Your task to perform on an android device: Go to Android settings Image 0: 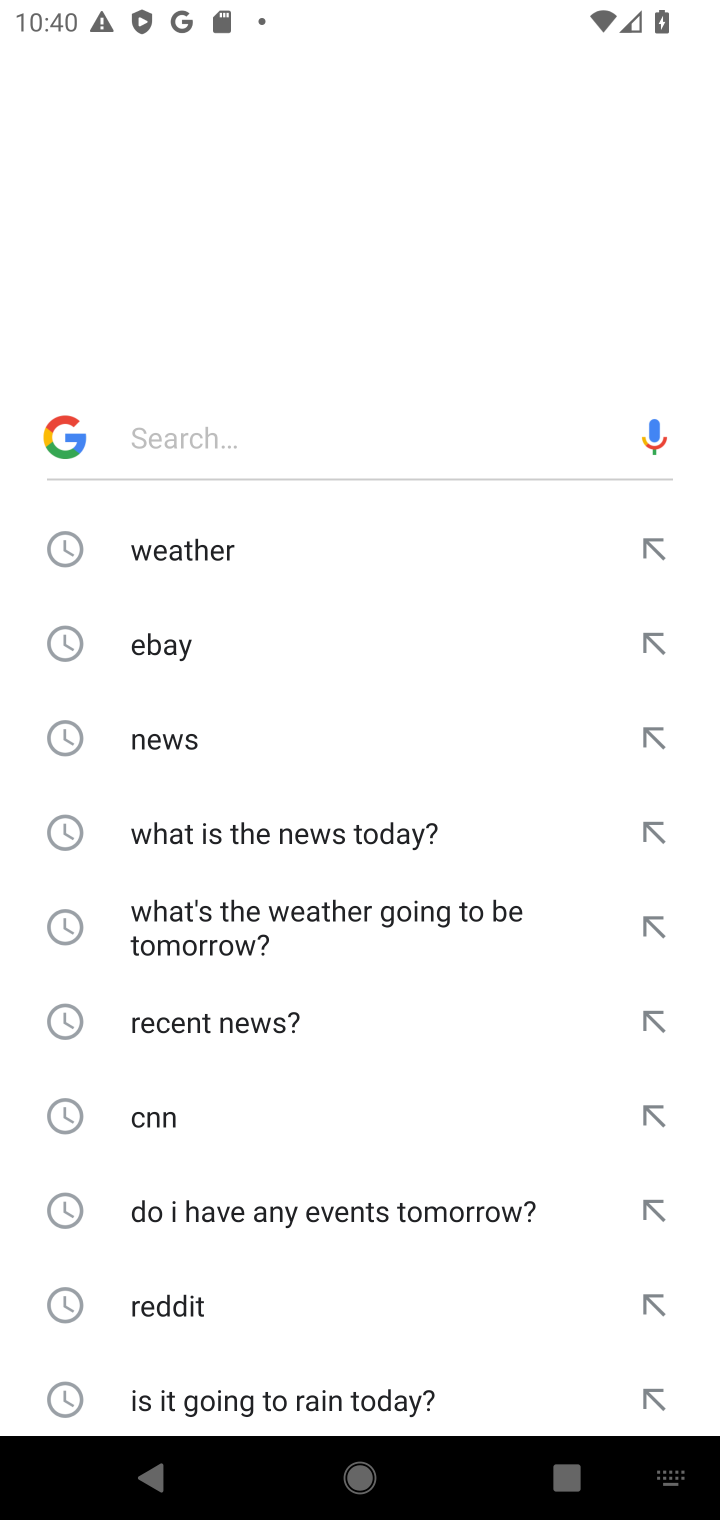
Step 0: press home button
Your task to perform on an android device: Go to Android settings Image 1: 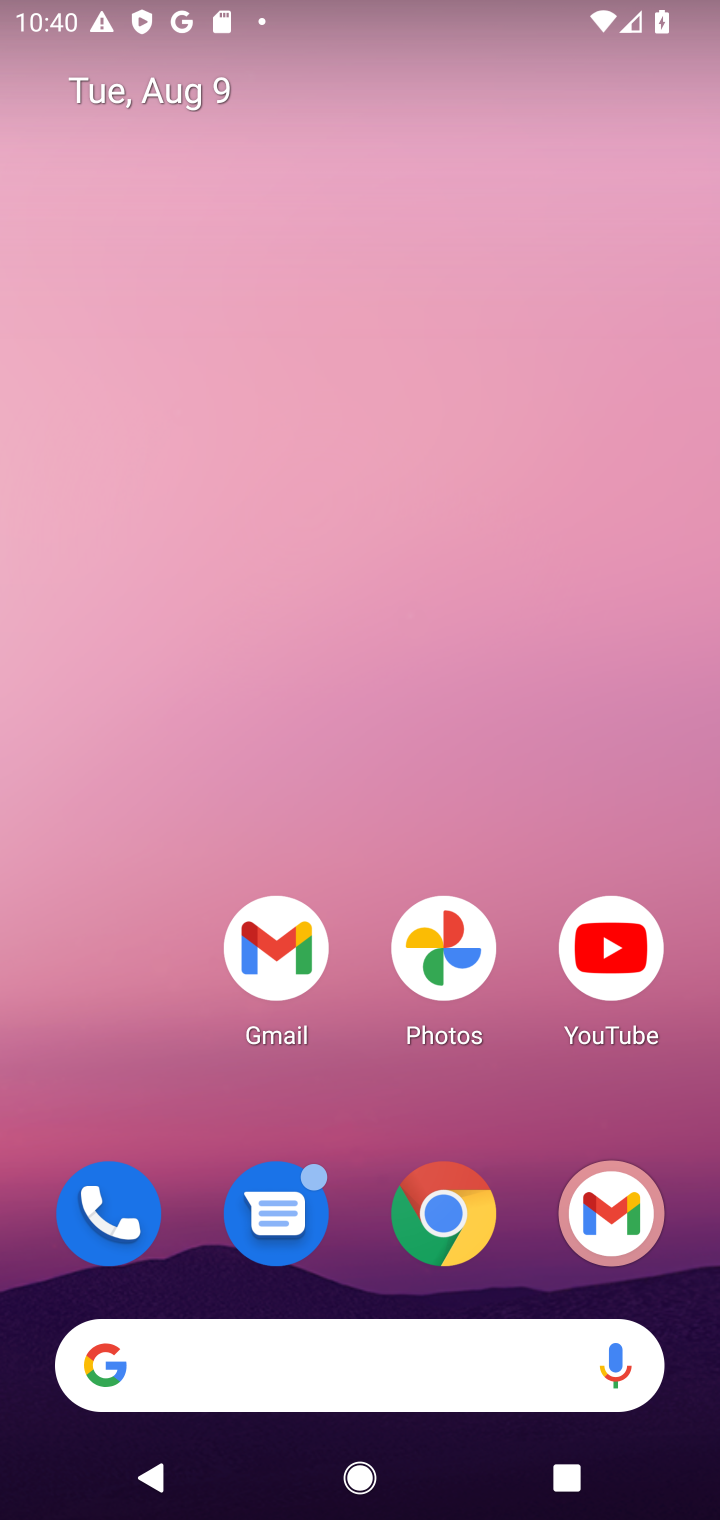
Step 1: drag from (458, 1200) to (421, 154)
Your task to perform on an android device: Go to Android settings Image 2: 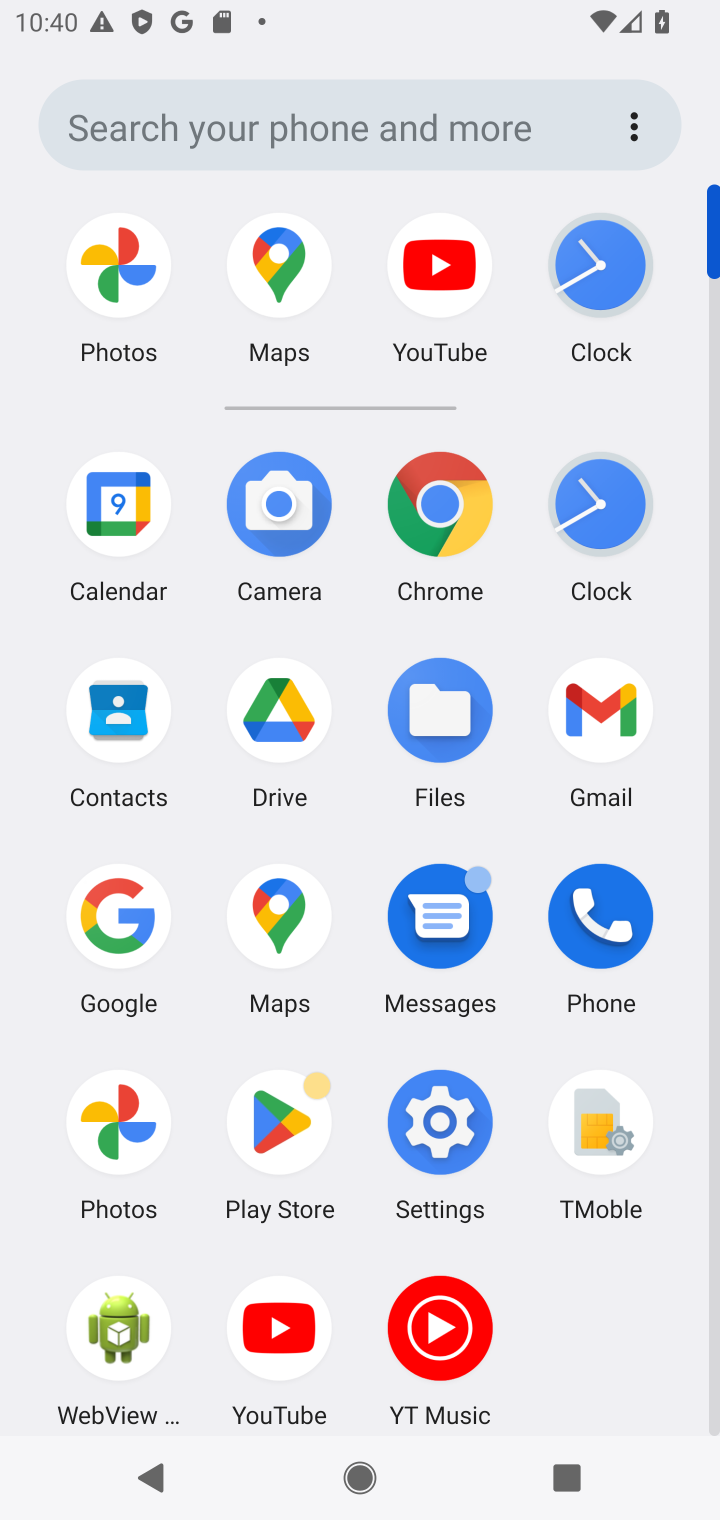
Step 2: click (448, 1080)
Your task to perform on an android device: Go to Android settings Image 3: 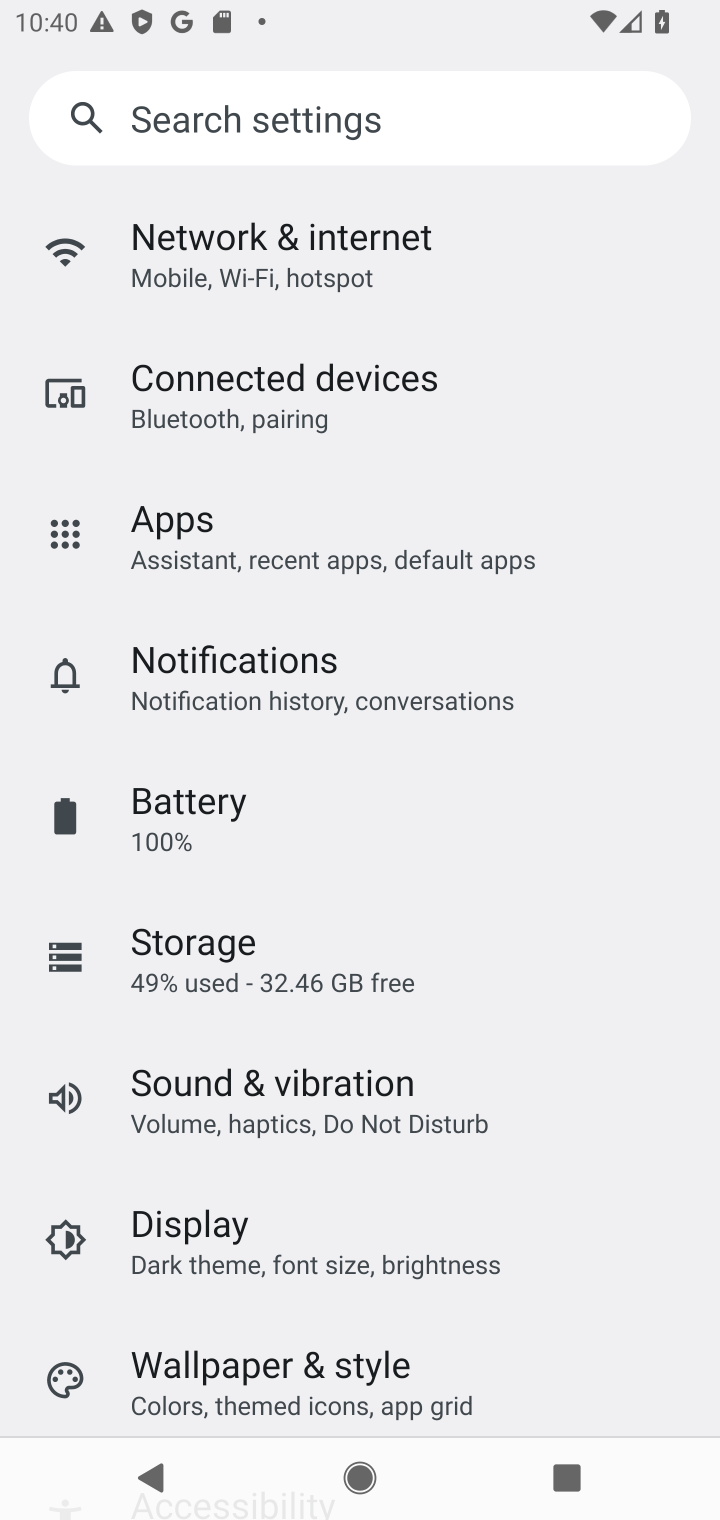
Step 3: task complete